Your task to perform on an android device: Go to internet settings Image 0: 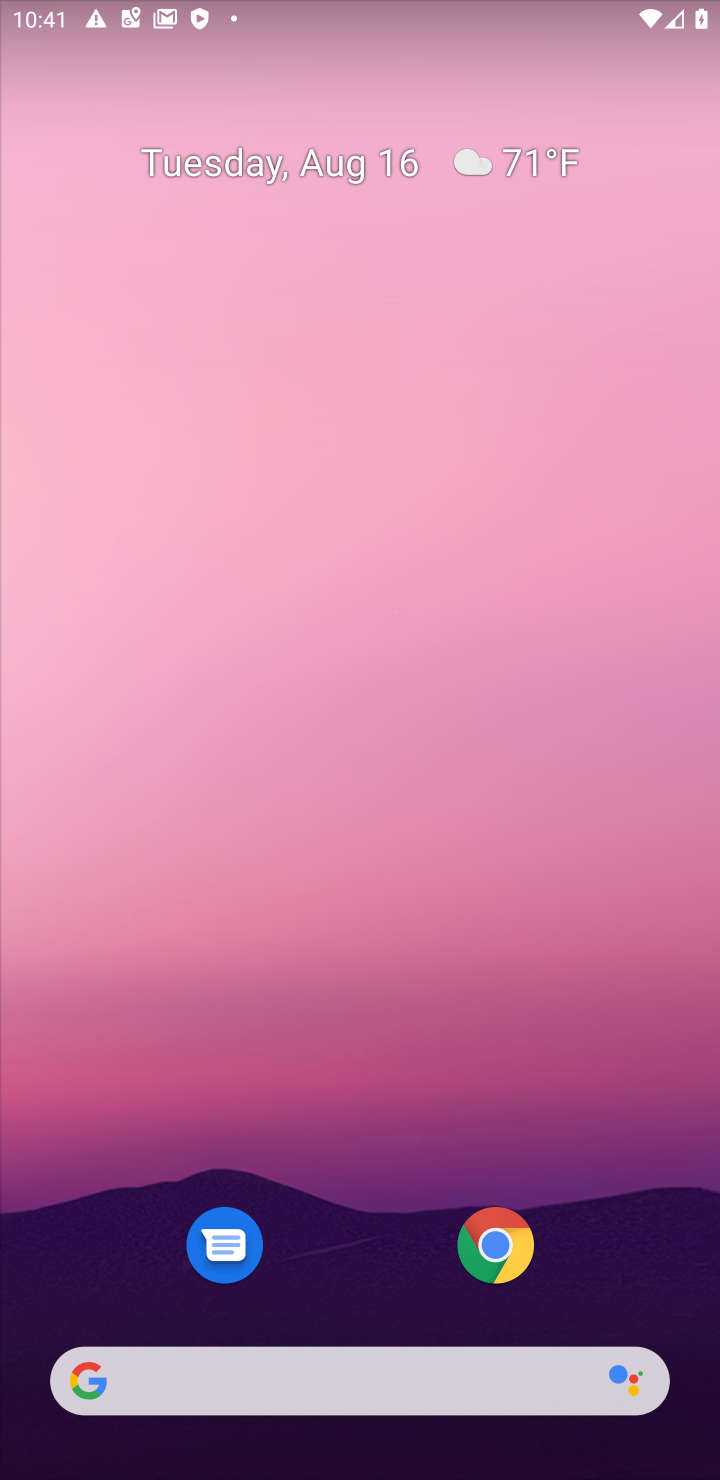
Step 0: drag from (392, 1296) to (375, 231)
Your task to perform on an android device: Go to internet settings Image 1: 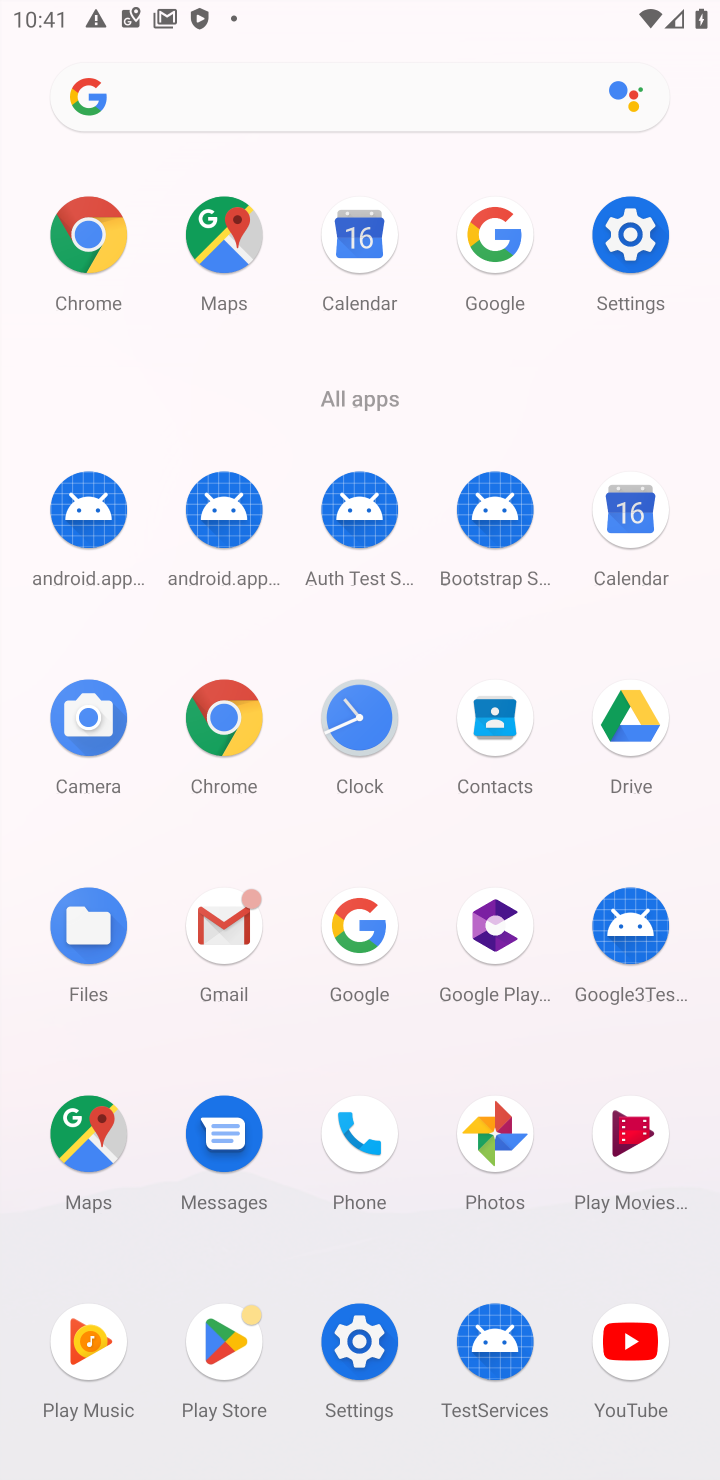
Step 1: click (627, 225)
Your task to perform on an android device: Go to internet settings Image 2: 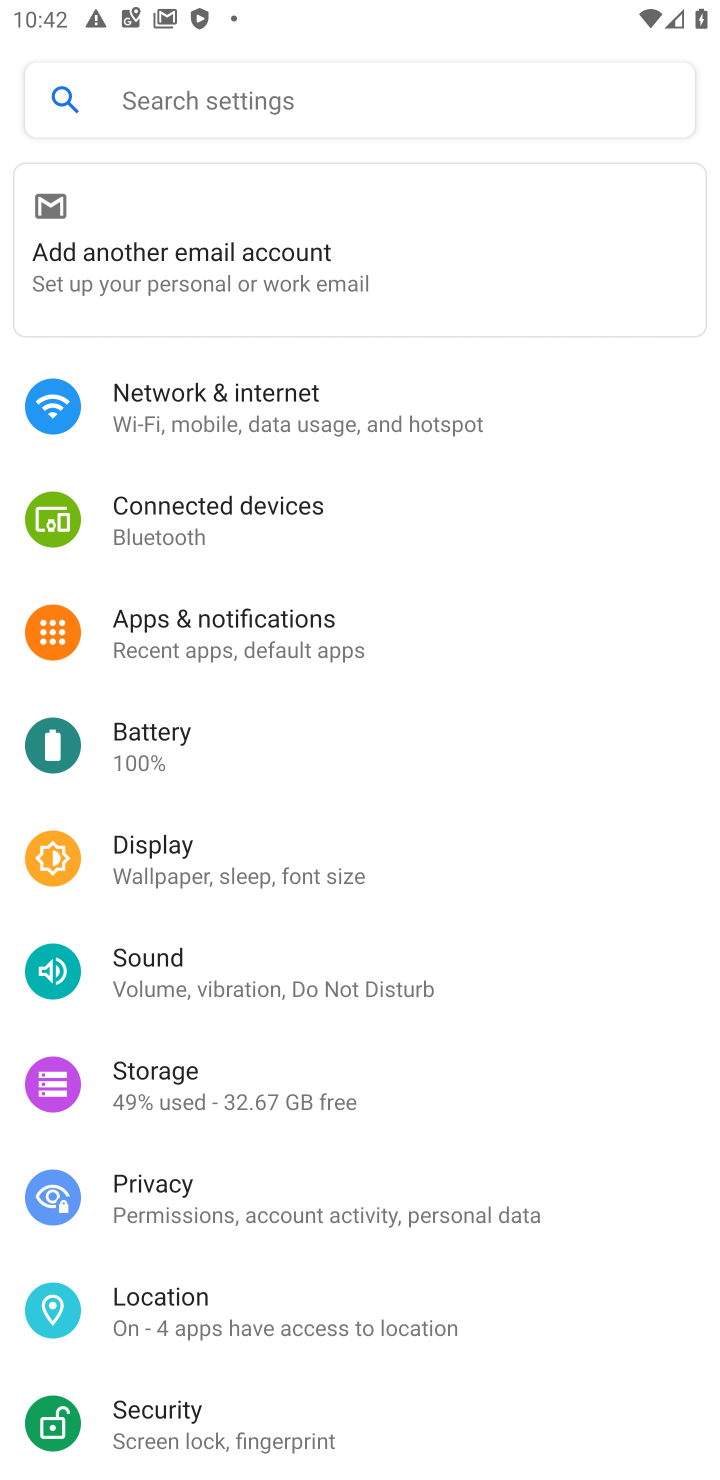
Step 2: click (277, 399)
Your task to perform on an android device: Go to internet settings Image 3: 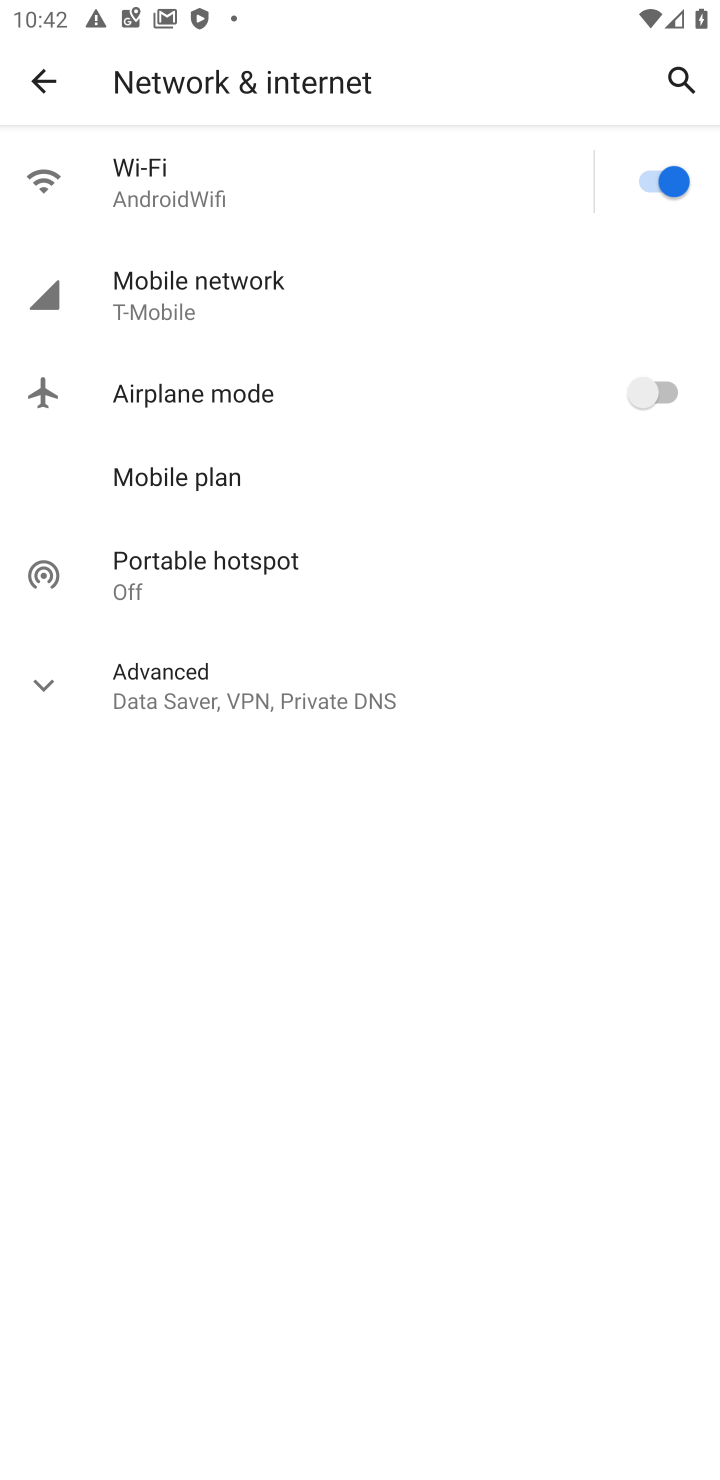
Step 3: task complete